Your task to perform on an android device: Go to accessibility settings Image 0: 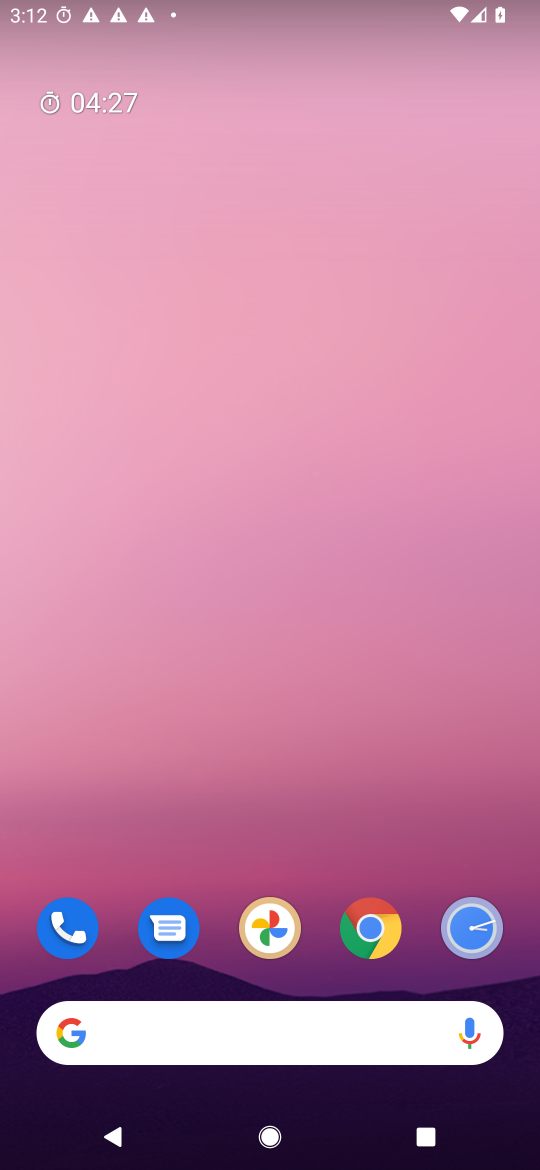
Step 0: drag from (275, 874) to (212, 145)
Your task to perform on an android device: Go to accessibility settings Image 1: 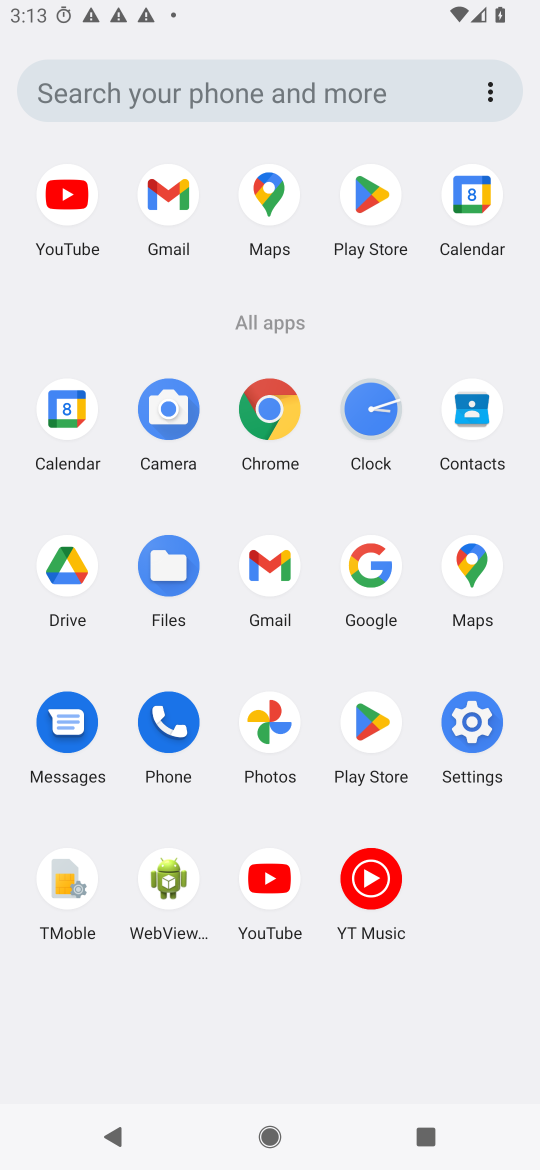
Step 1: click (477, 714)
Your task to perform on an android device: Go to accessibility settings Image 2: 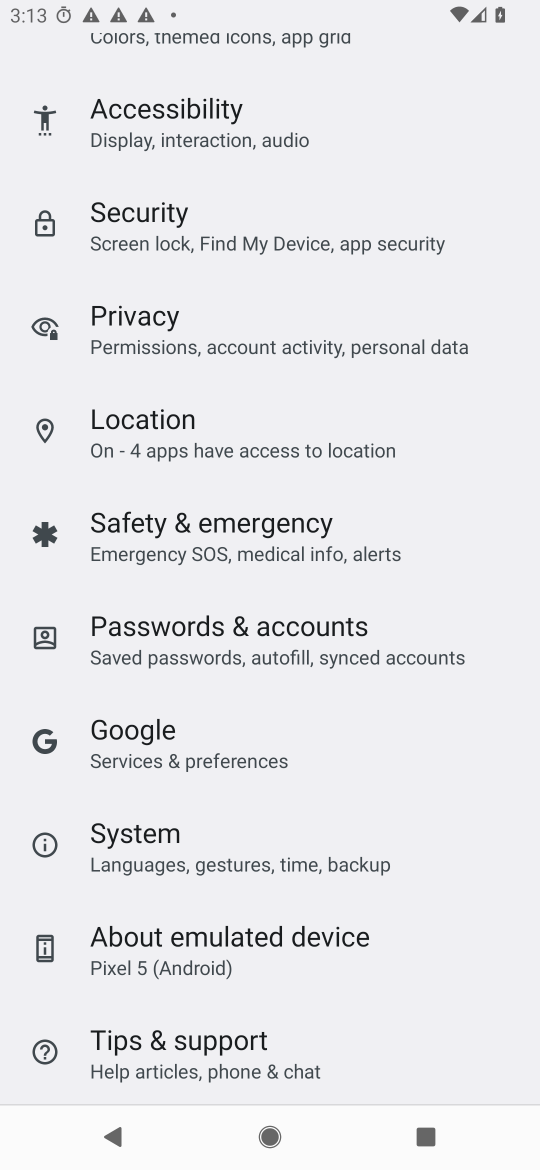
Step 2: click (279, 112)
Your task to perform on an android device: Go to accessibility settings Image 3: 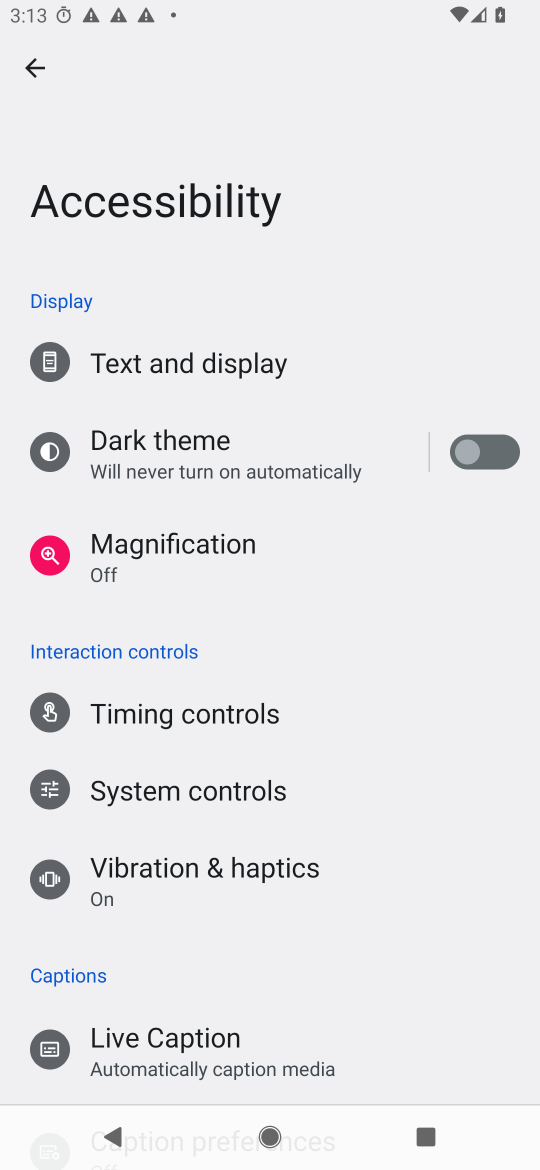
Step 3: task complete